Your task to perform on an android device: snooze an email in the gmail app Image 0: 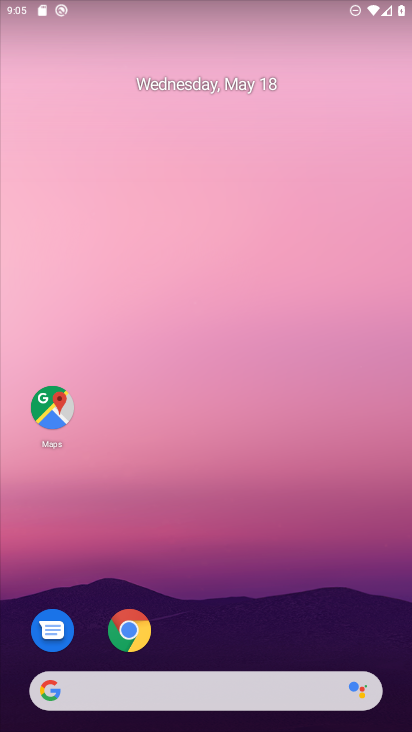
Step 0: drag from (192, 657) to (119, 70)
Your task to perform on an android device: snooze an email in the gmail app Image 1: 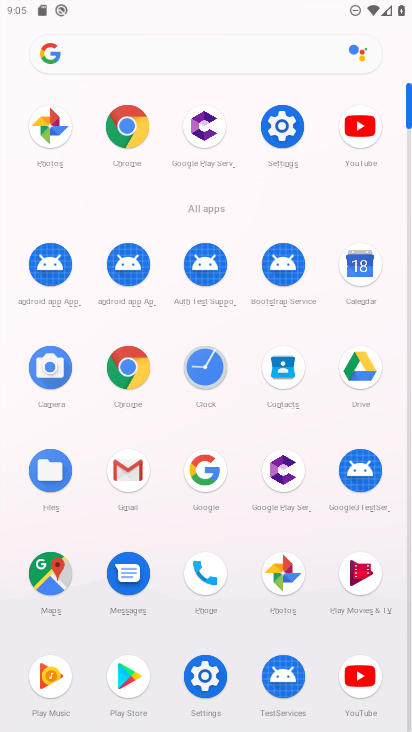
Step 1: click (116, 459)
Your task to perform on an android device: snooze an email in the gmail app Image 2: 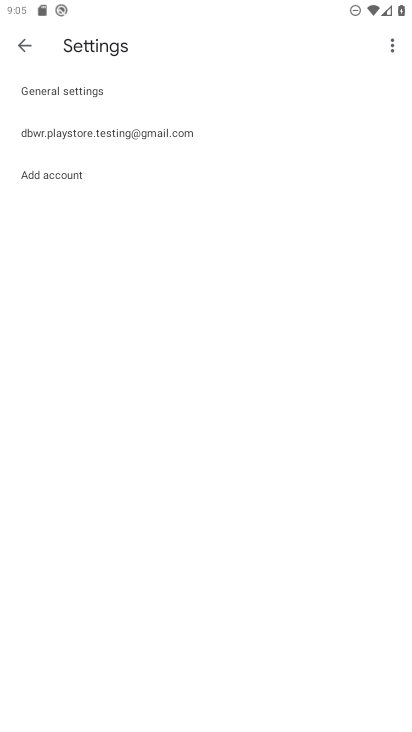
Step 2: click (9, 48)
Your task to perform on an android device: snooze an email in the gmail app Image 3: 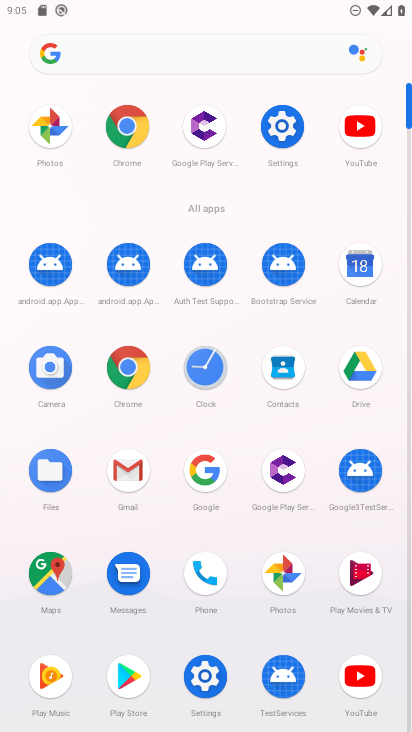
Step 3: click (136, 472)
Your task to perform on an android device: snooze an email in the gmail app Image 4: 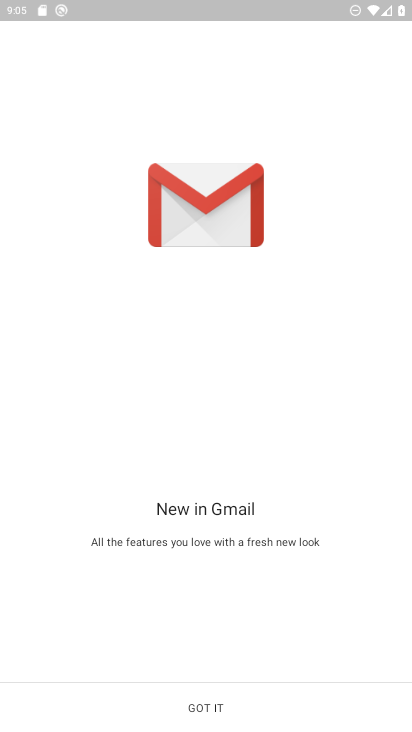
Step 4: click (183, 702)
Your task to perform on an android device: snooze an email in the gmail app Image 5: 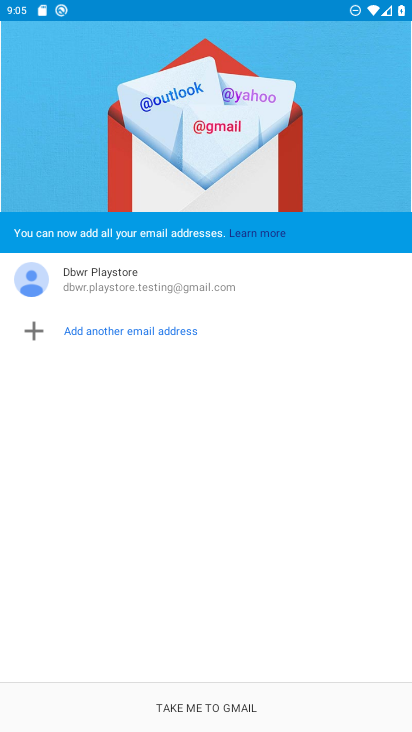
Step 5: click (194, 703)
Your task to perform on an android device: snooze an email in the gmail app Image 6: 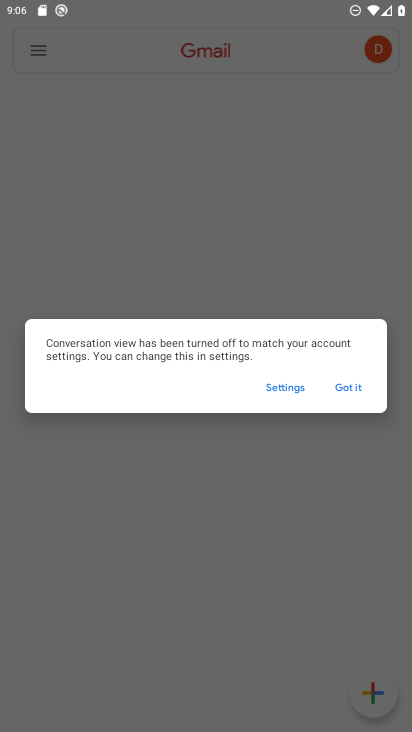
Step 6: click (340, 386)
Your task to perform on an android device: snooze an email in the gmail app Image 7: 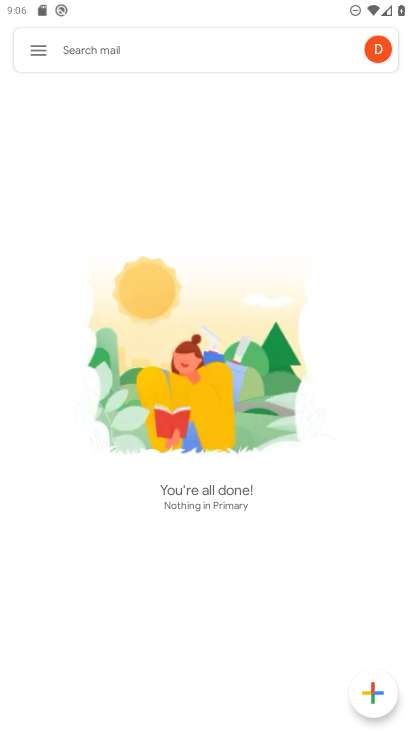
Step 7: click (29, 50)
Your task to perform on an android device: snooze an email in the gmail app Image 8: 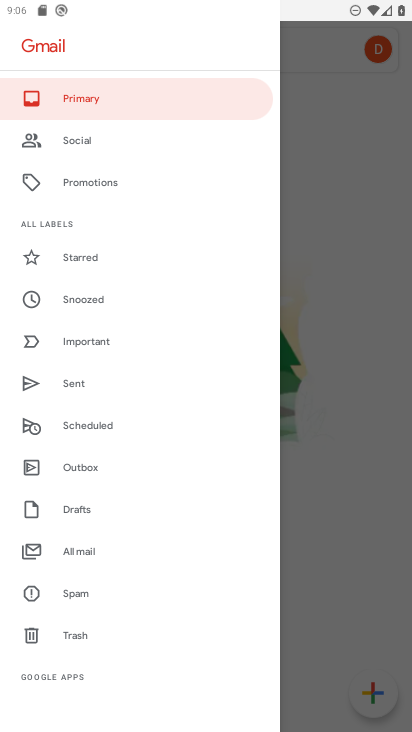
Step 8: click (78, 550)
Your task to perform on an android device: snooze an email in the gmail app Image 9: 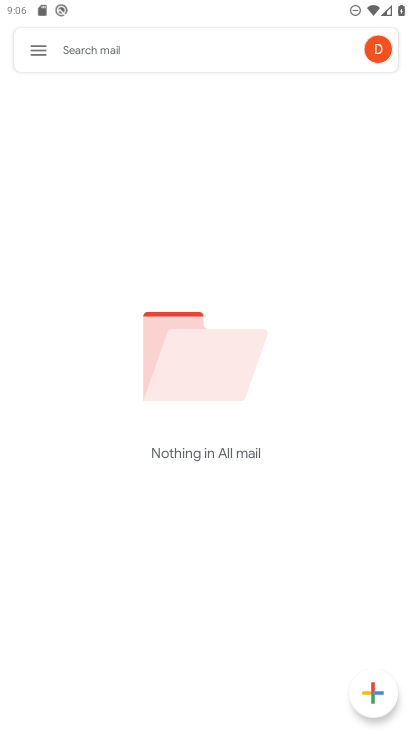
Step 9: task complete